Your task to perform on an android device: What's the weather going to be this weekend? Image 0: 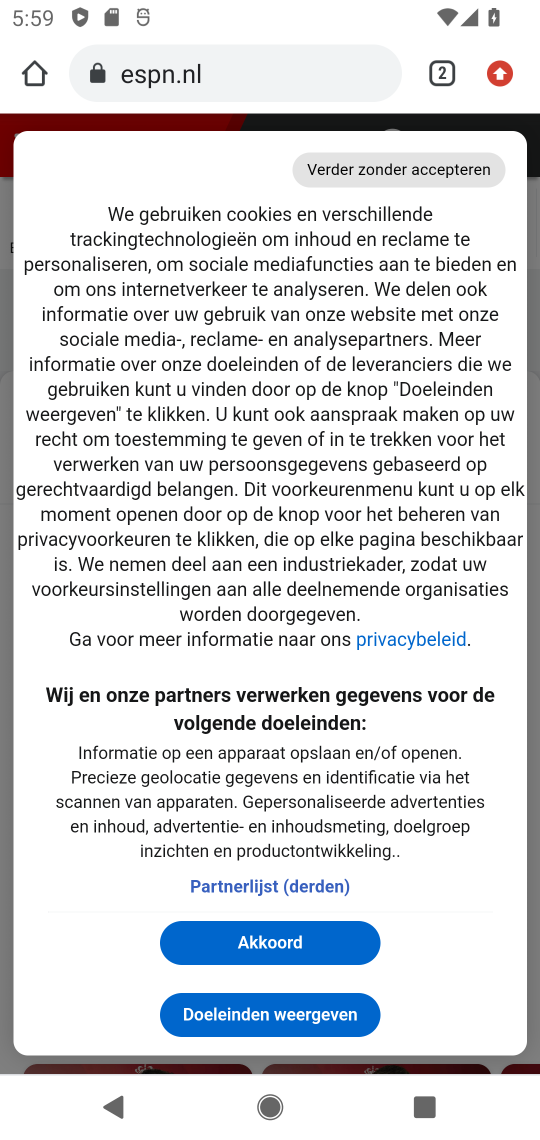
Step 0: press home button
Your task to perform on an android device: What's the weather going to be this weekend? Image 1: 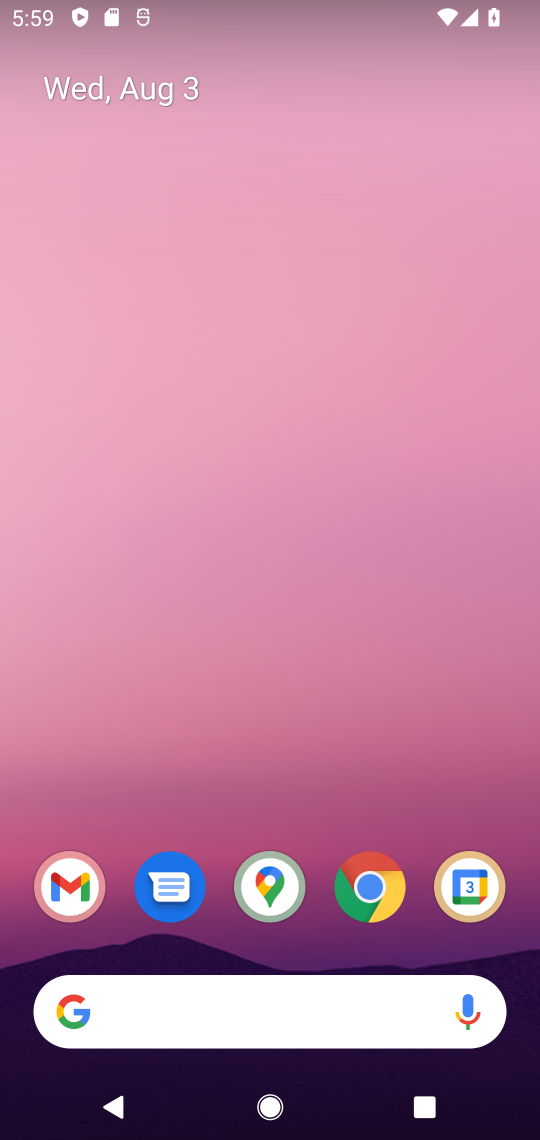
Step 1: click (336, 1040)
Your task to perform on an android device: What's the weather going to be this weekend? Image 2: 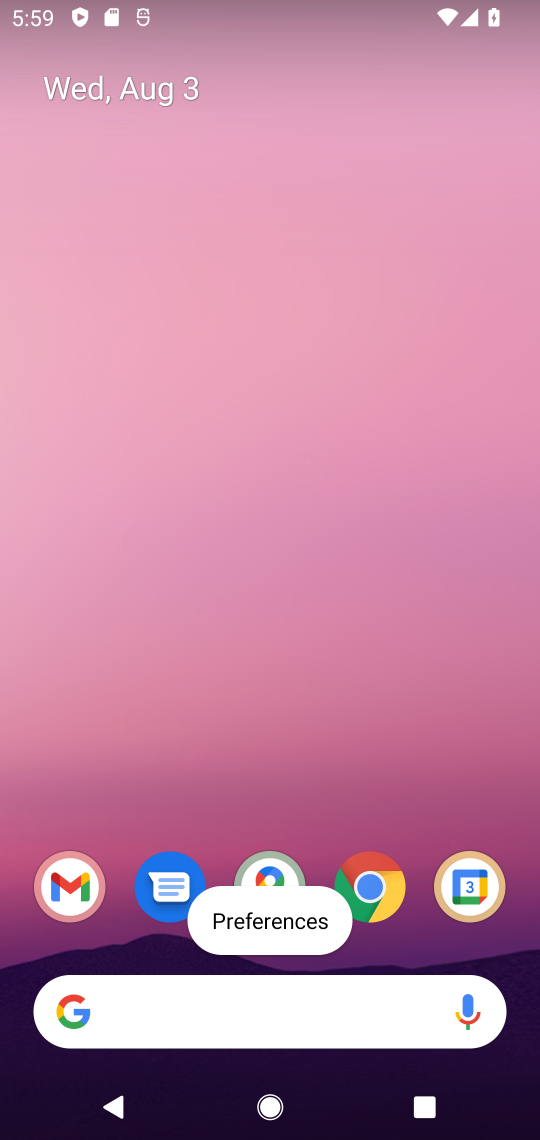
Step 2: click (238, 1017)
Your task to perform on an android device: What's the weather going to be this weekend? Image 3: 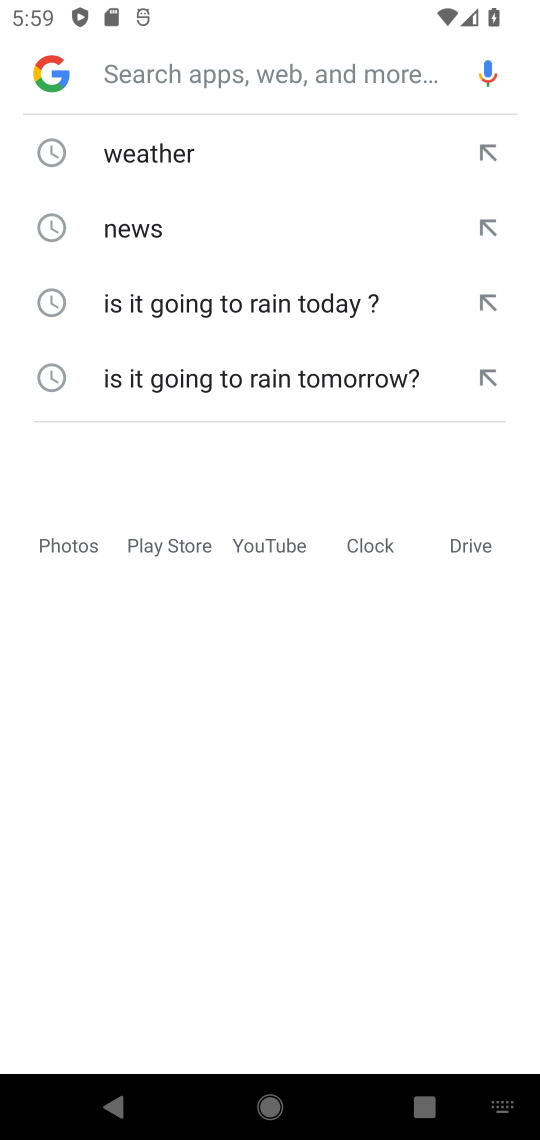
Step 3: click (280, 59)
Your task to perform on an android device: What's the weather going to be this weekend? Image 4: 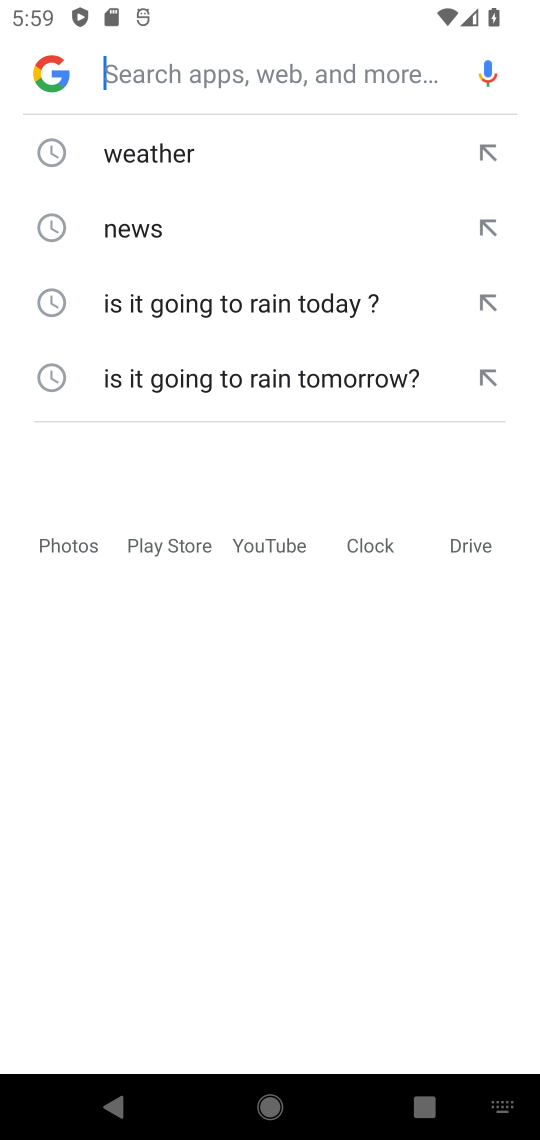
Step 4: click (138, 153)
Your task to perform on an android device: What's the weather going to be this weekend? Image 5: 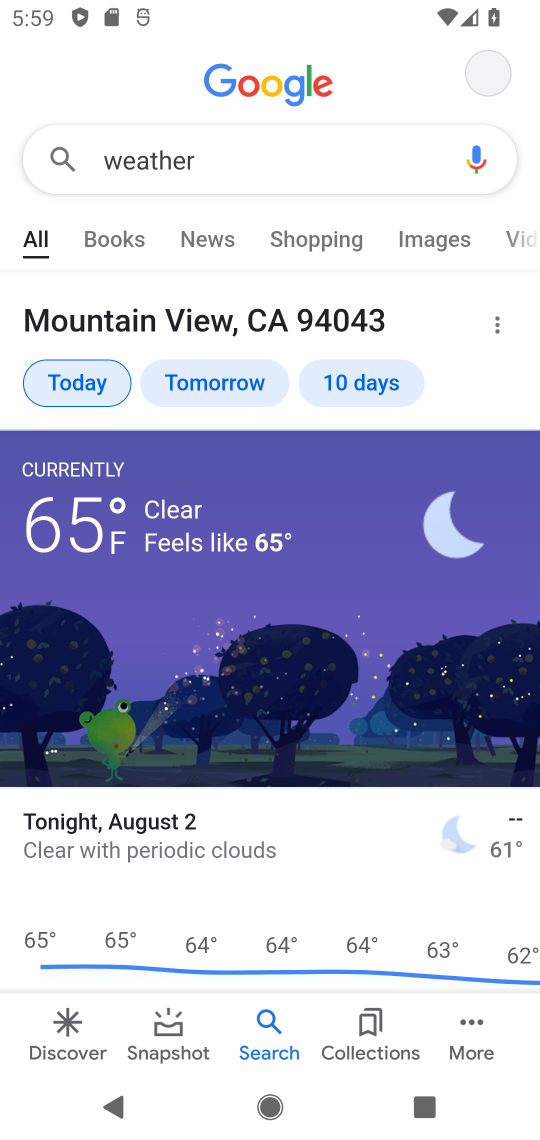
Step 5: click (363, 366)
Your task to perform on an android device: What's the weather going to be this weekend? Image 6: 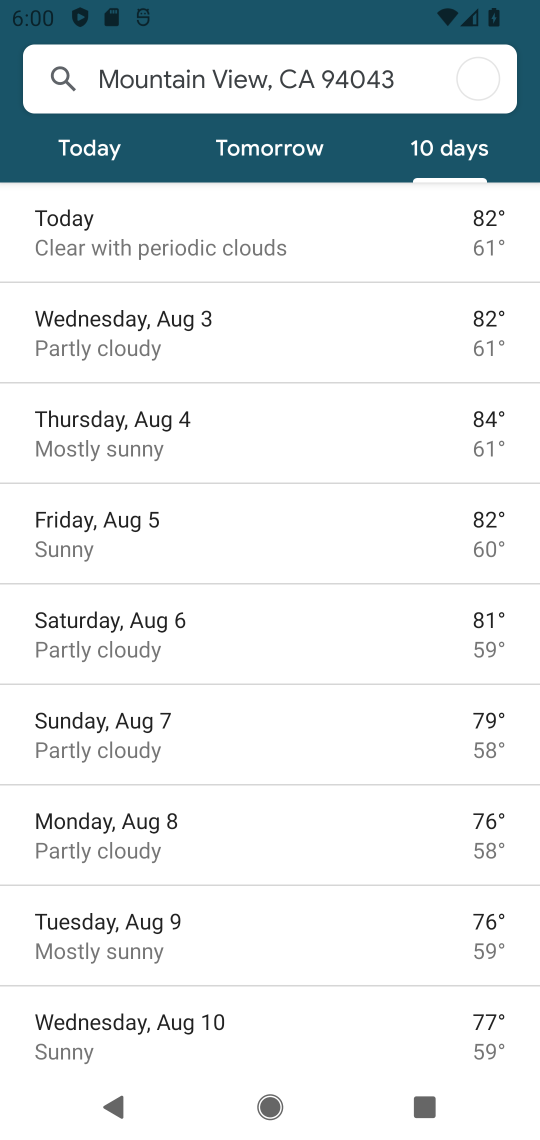
Step 6: task complete